Your task to perform on an android device: change the clock display to analog Image 0: 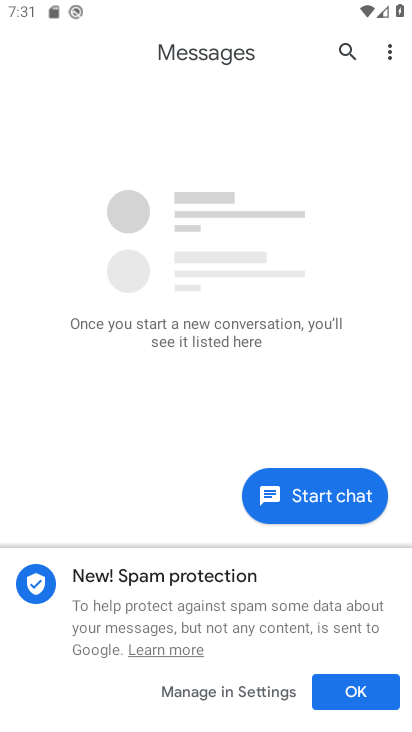
Step 0: press home button
Your task to perform on an android device: change the clock display to analog Image 1: 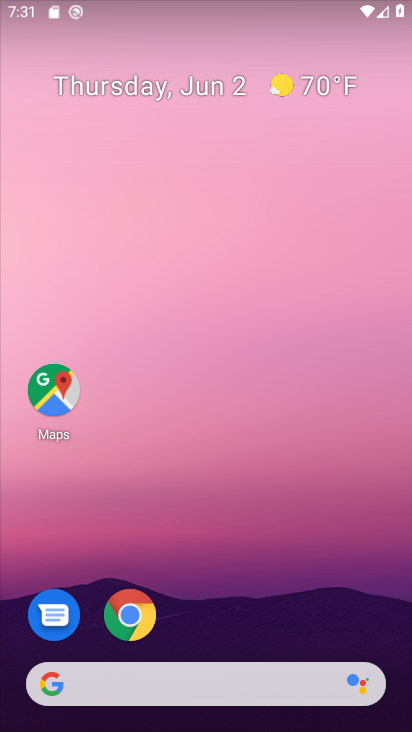
Step 1: drag from (288, 614) to (255, 57)
Your task to perform on an android device: change the clock display to analog Image 2: 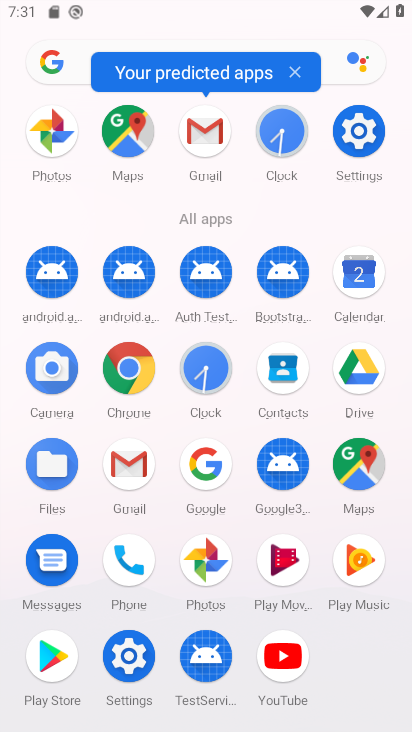
Step 2: click (295, 153)
Your task to perform on an android device: change the clock display to analog Image 3: 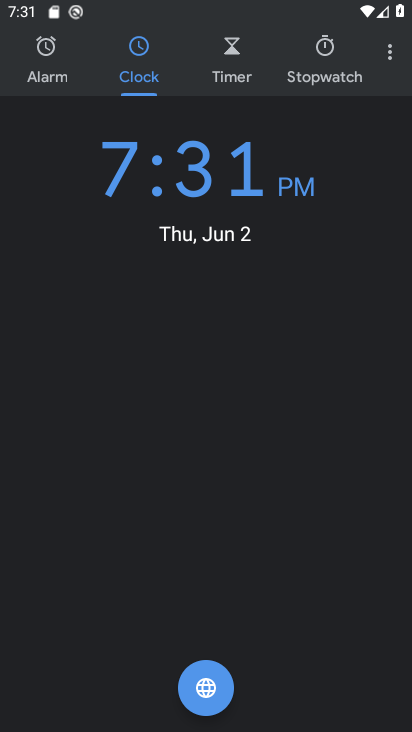
Step 3: click (379, 55)
Your task to perform on an android device: change the clock display to analog Image 4: 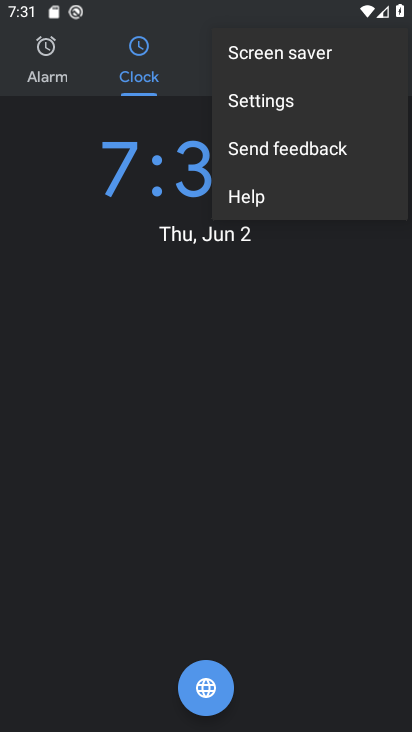
Step 4: click (316, 95)
Your task to perform on an android device: change the clock display to analog Image 5: 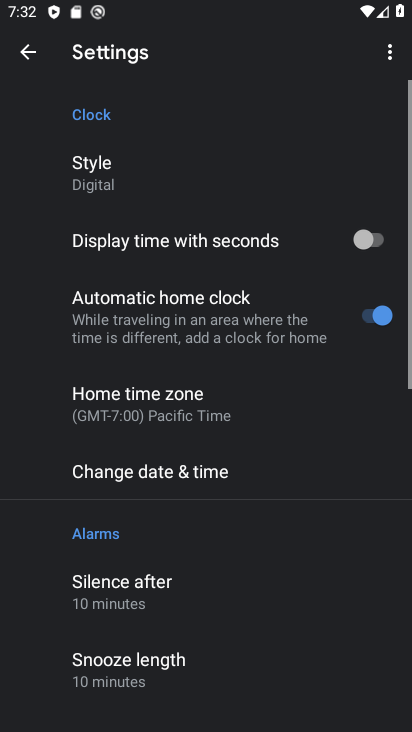
Step 5: click (145, 177)
Your task to perform on an android device: change the clock display to analog Image 6: 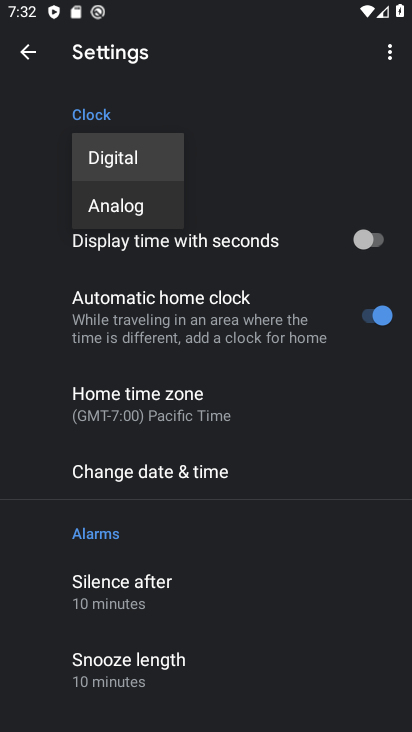
Step 6: click (139, 200)
Your task to perform on an android device: change the clock display to analog Image 7: 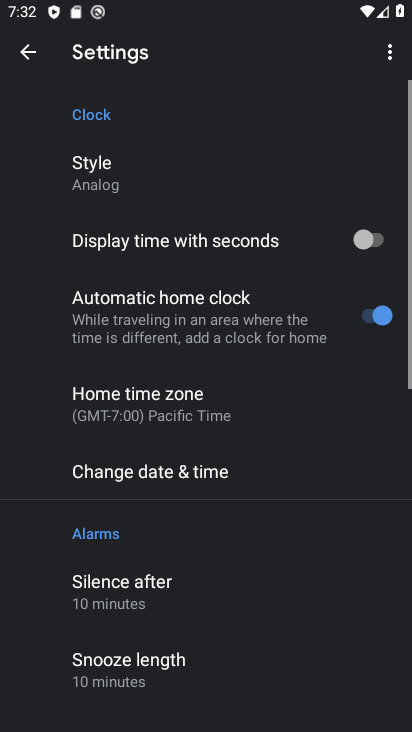
Step 7: task complete